Your task to perform on an android device: Open eBay Image 0: 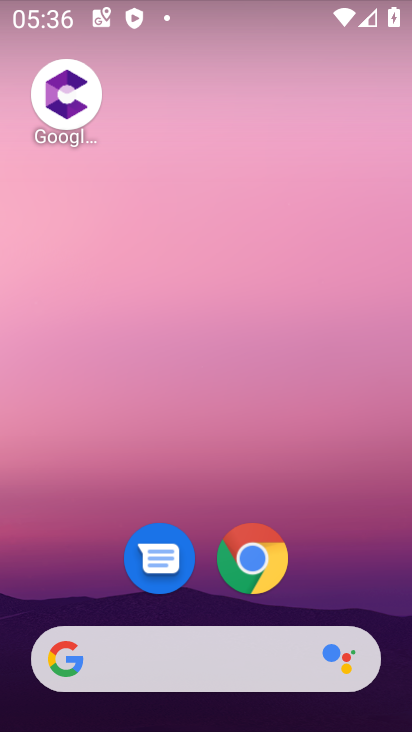
Step 0: drag from (325, 593) to (302, 202)
Your task to perform on an android device: Open eBay Image 1: 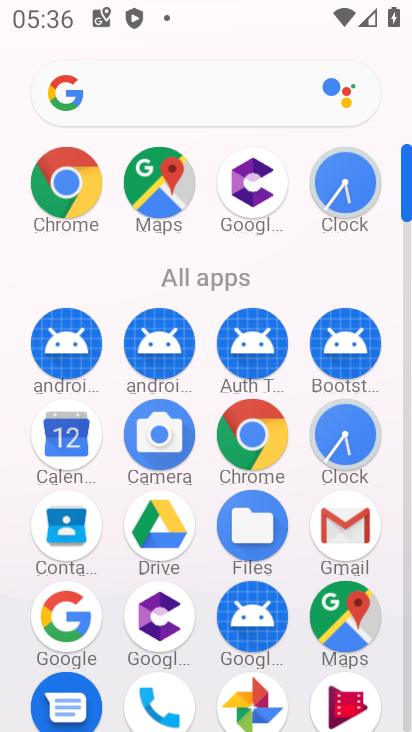
Step 1: click (54, 236)
Your task to perform on an android device: Open eBay Image 2: 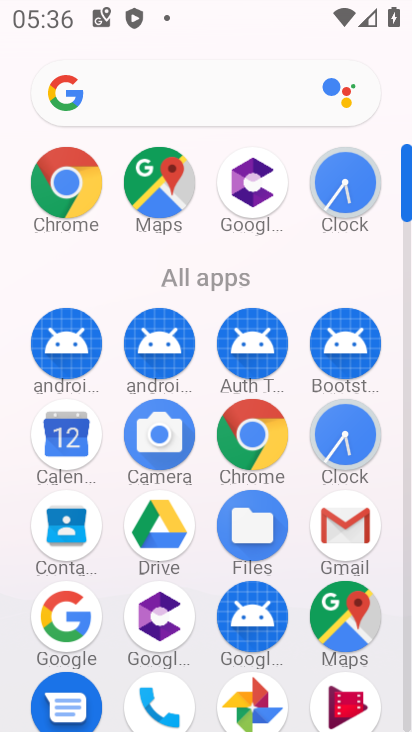
Step 2: click (61, 224)
Your task to perform on an android device: Open eBay Image 3: 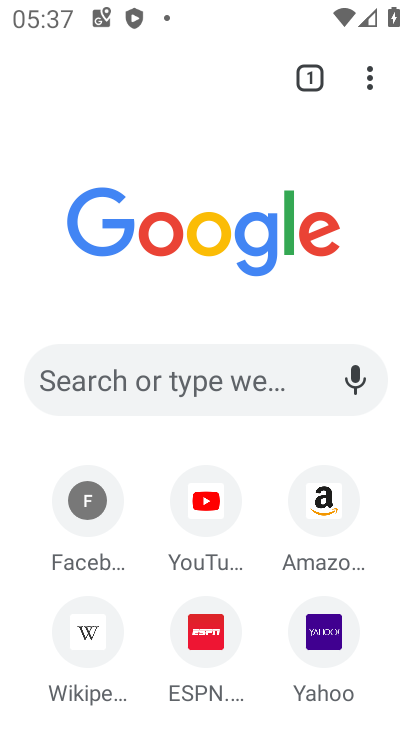
Step 3: click (204, 383)
Your task to perform on an android device: Open eBay Image 4: 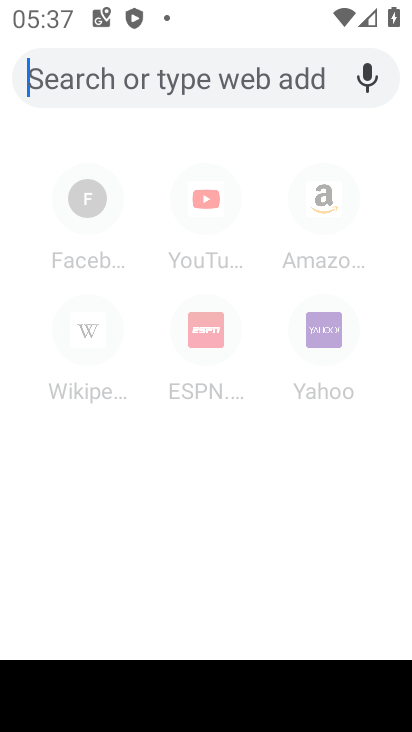
Step 4: type "www.ebay.com"
Your task to perform on an android device: Open eBay Image 5: 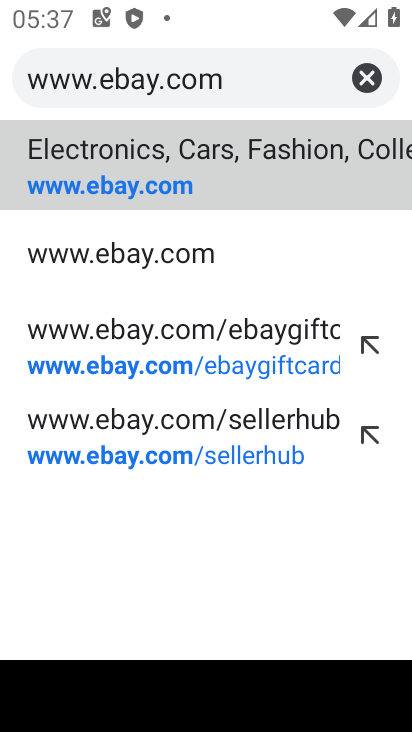
Step 5: click (132, 174)
Your task to perform on an android device: Open eBay Image 6: 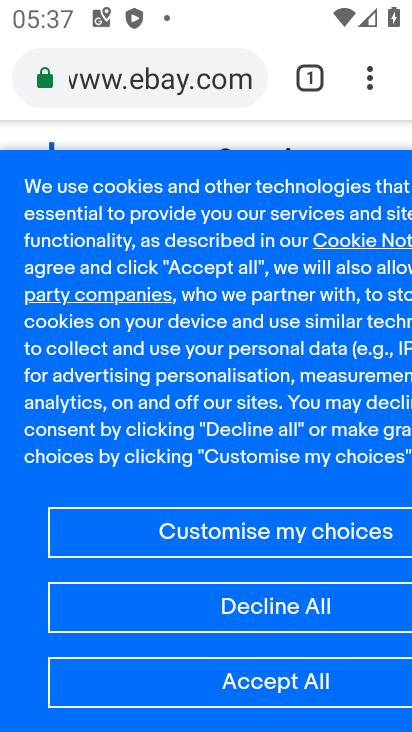
Step 6: task complete